Your task to perform on an android device: delete location history Image 0: 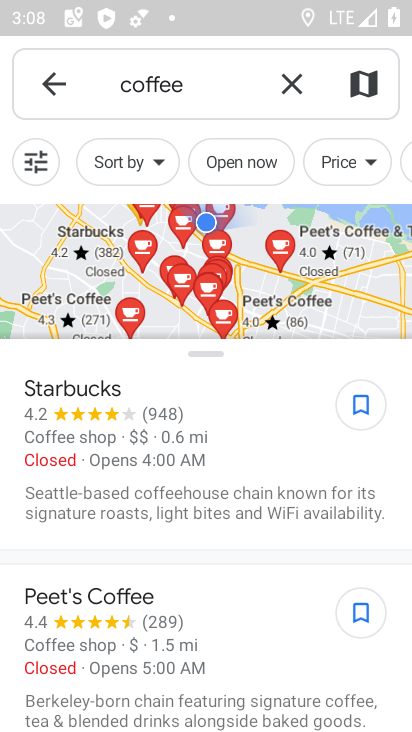
Step 0: click (39, 83)
Your task to perform on an android device: delete location history Image 1: 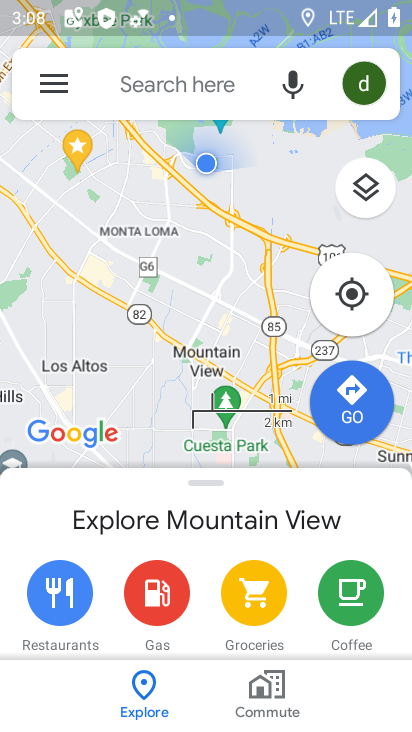
Step 1: click (47, 84)
Your task to perform on an android device: delete location history Image 2: 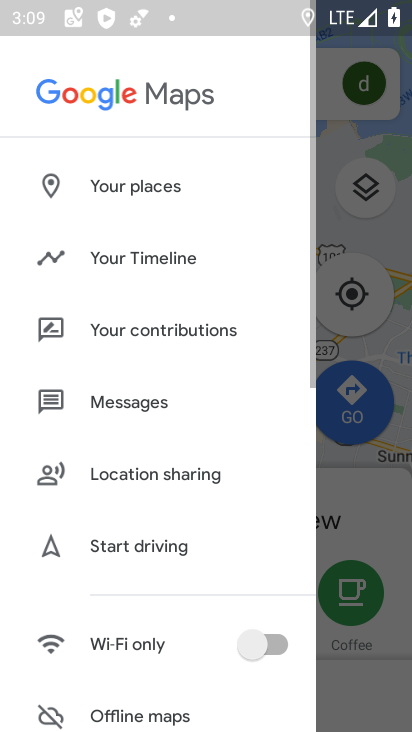
Step 2: click (134, 248)
Your task to perform on an android device: delete location history Image 3: 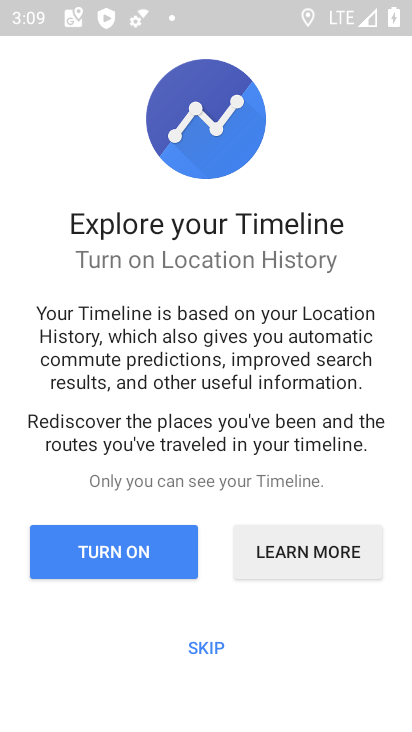
Step 3: click (222, 661)
Your task to perform on an android device: delete location history Image 4: 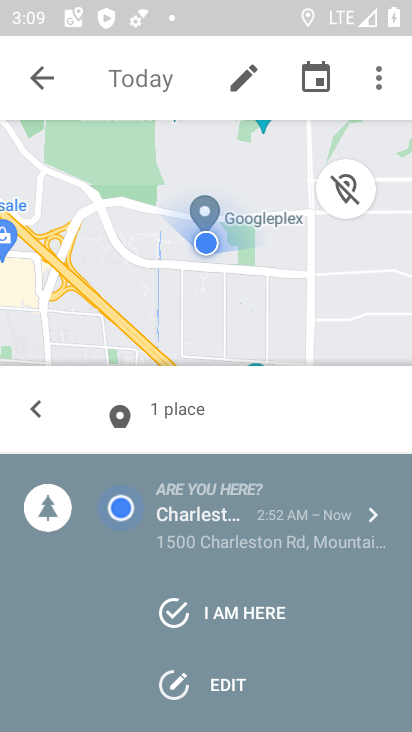
Step 4: click (385, 81)
Your task to perform on an android device: delete location history Image 5: 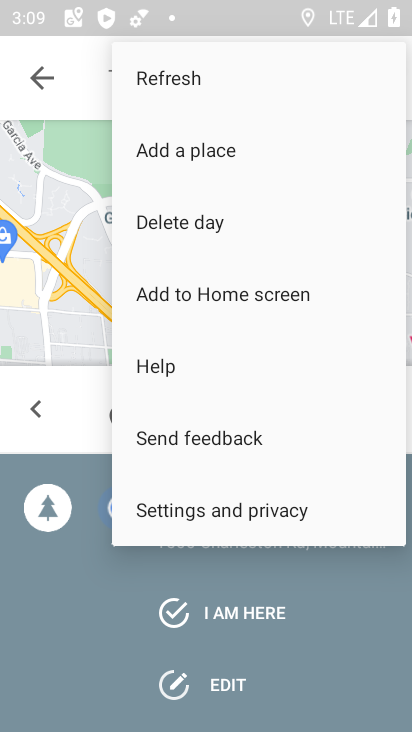
Step 5: click (242, 505)
Your task to perform on an android device: delete location history Image 6: 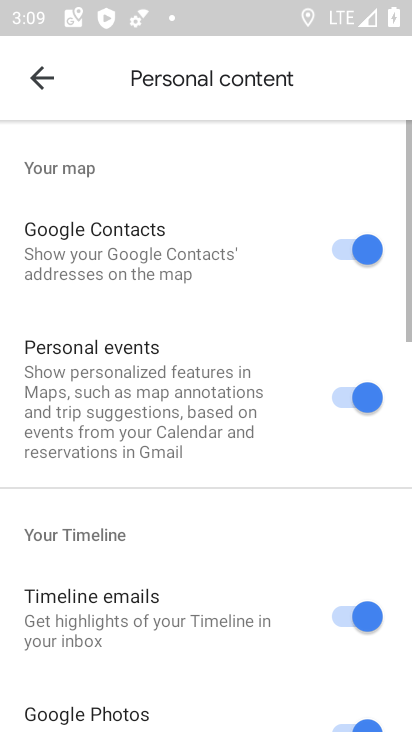
Step 6: drag from (119, 644) to (169, 62)
Your task to perform on an android device: delete location history Image 7: 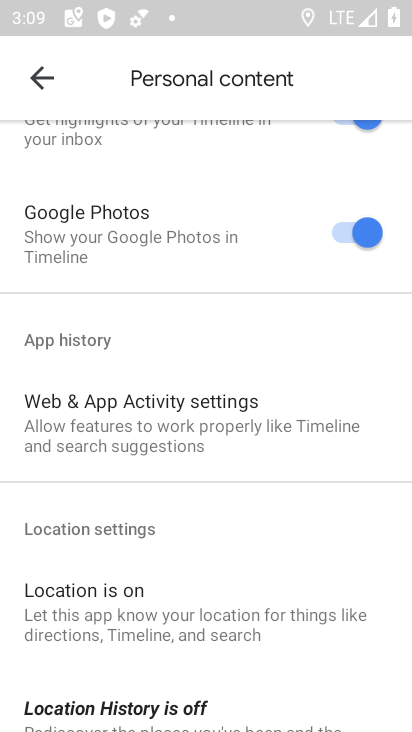
Step 7: drag from (174, 608) to (227, 176)
Your task to perform on an android device: delete location history Image 8: 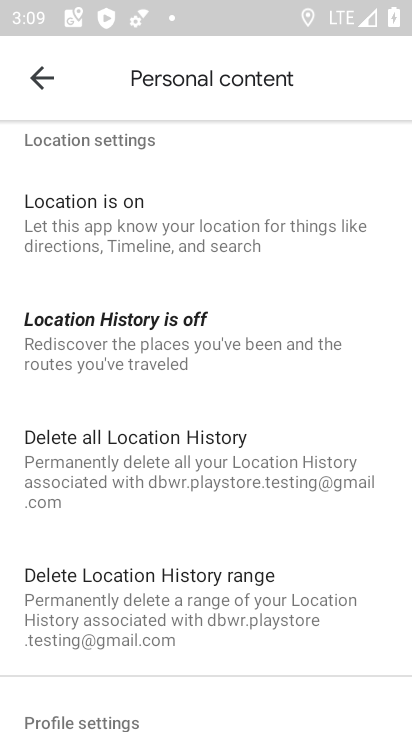
Step 8: click (137, 485)
Your task to perform on an android device: delete location history Image 9: 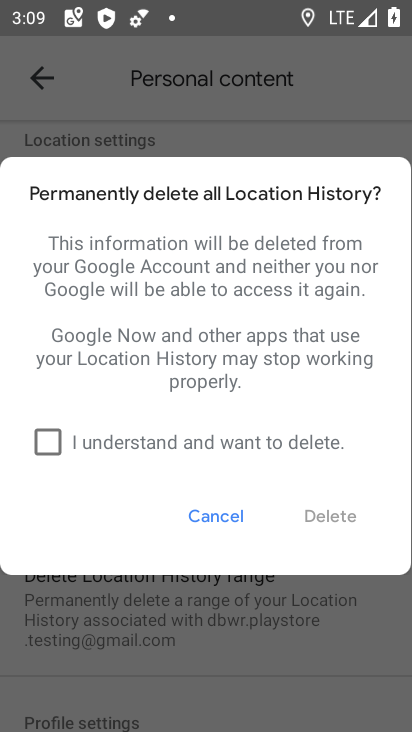
Step 9: click (32, 433)
Your task to perform on an android device: delete location history Image 10: 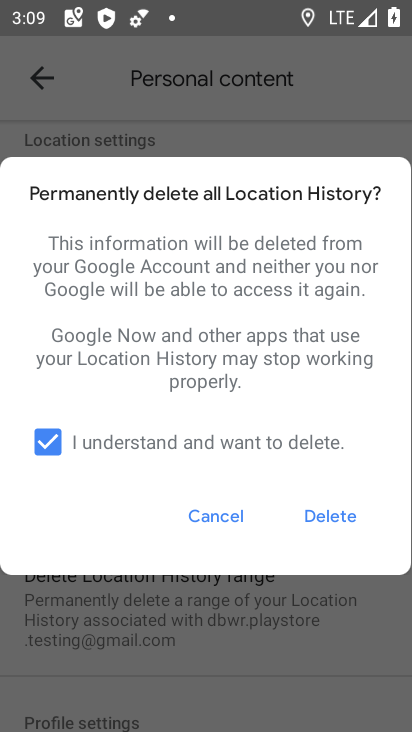
Step 10: click (343, 519)
Your task to perform on an android device: delete location history Image 11: 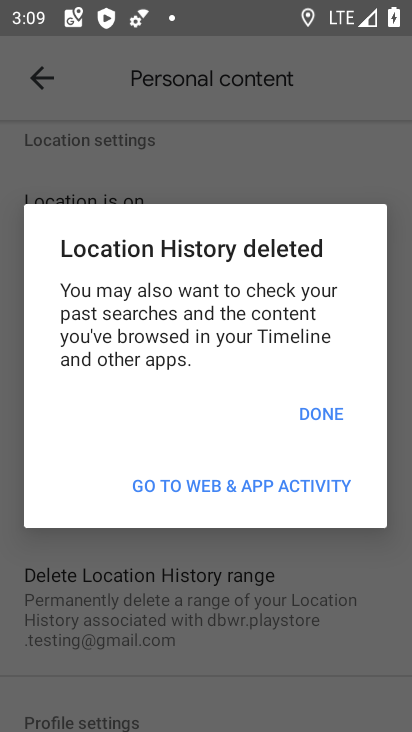
Step 11: click (317, 399)
Your task to perform on an android device: delete location history Image 12: 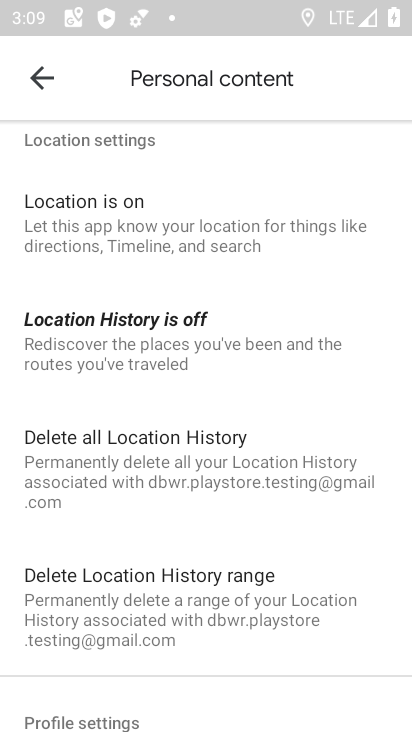
Step 12: task complete